Your task to perform on an android device: turn on wifi Image 0: 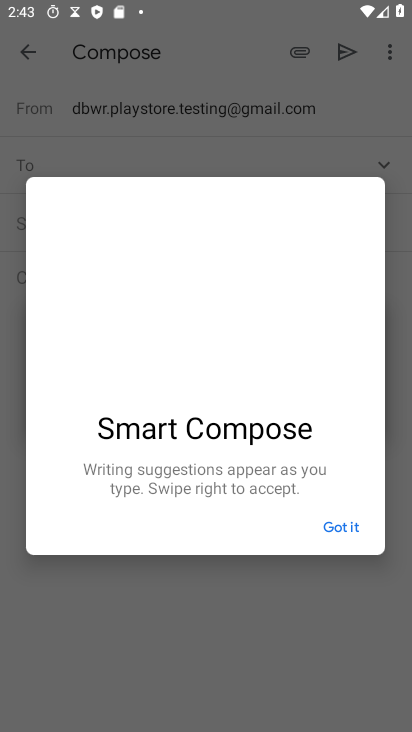
Step 0: press home button
Your task to perform on an android device: turn on wifi Image 1: 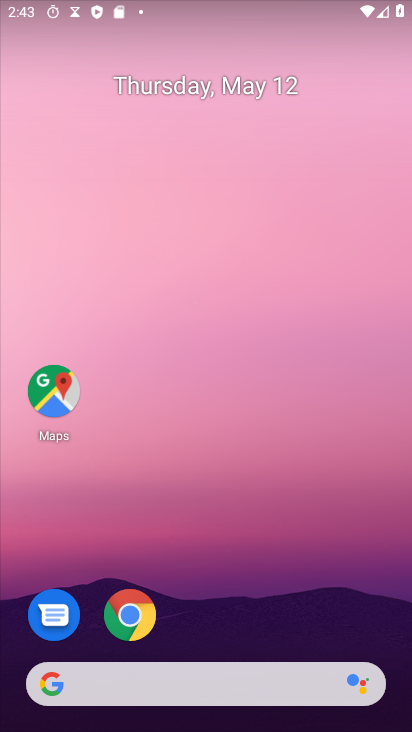
Step 1: task complete